Your task to perform on an android device: add a contact Image 0: 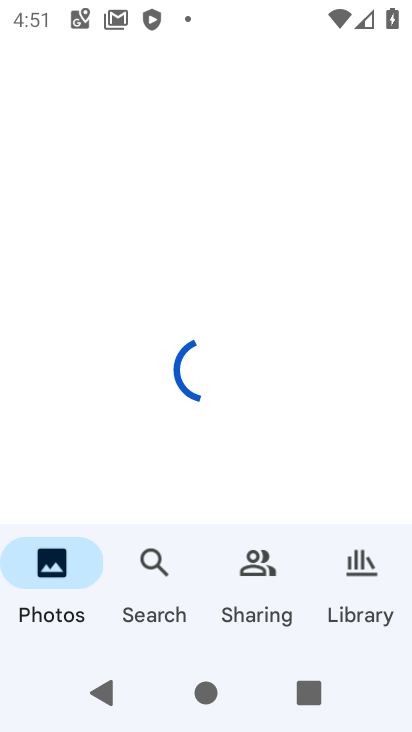
Step 0: press home button
Your task to perform on an android device: add a contact Image 1: 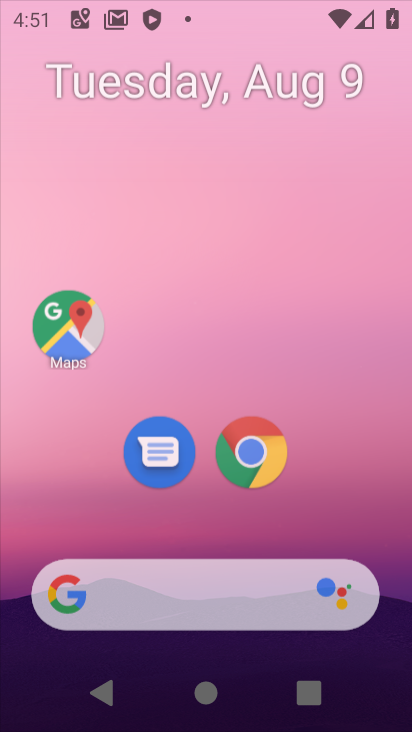
Step 1: drag from (254, 590) to (357, 184)
Your task to perform on an android device: add a contact Image 2: 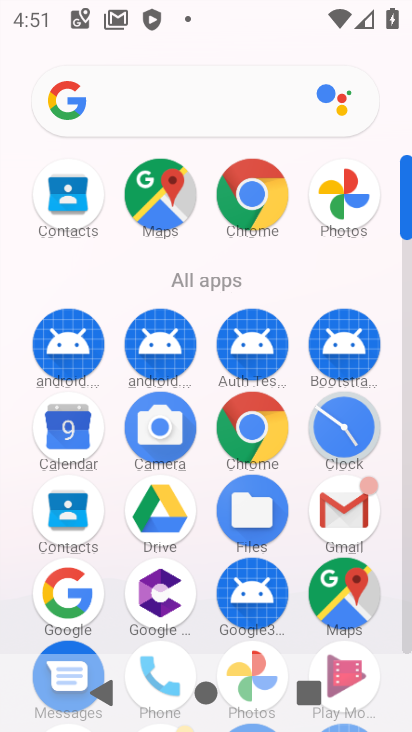
Step 2: drag from (187, 629) to (296, 261)
Your task to perform on an android device: add a contact Image 3: 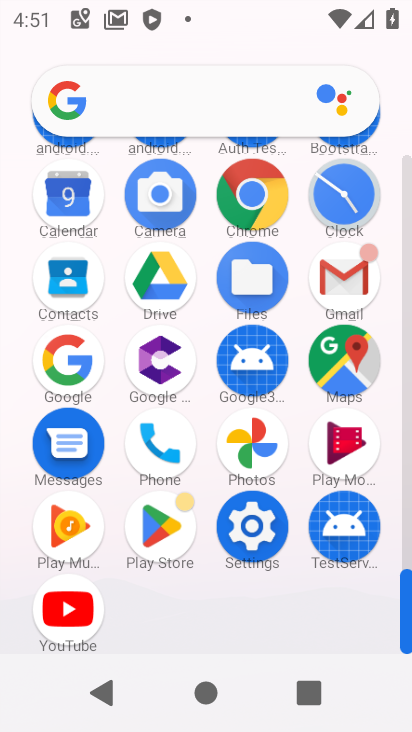
Step 3: click (64, 282)
Your task to perform on an android device: add a contact Image 4: 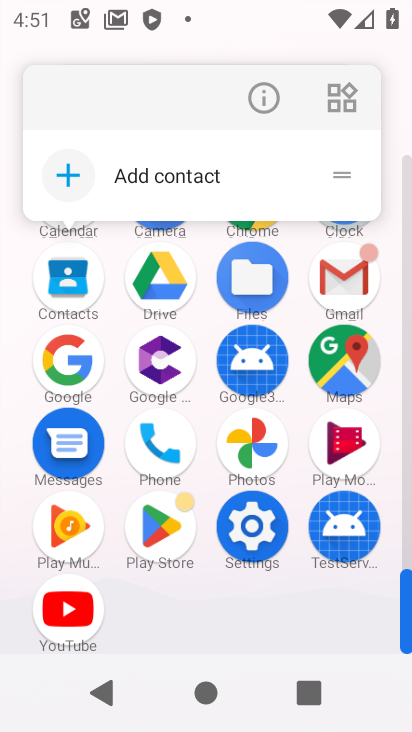
Step 4: click (264, 98)
Your task to perform on an android device: add a contact Image 5: 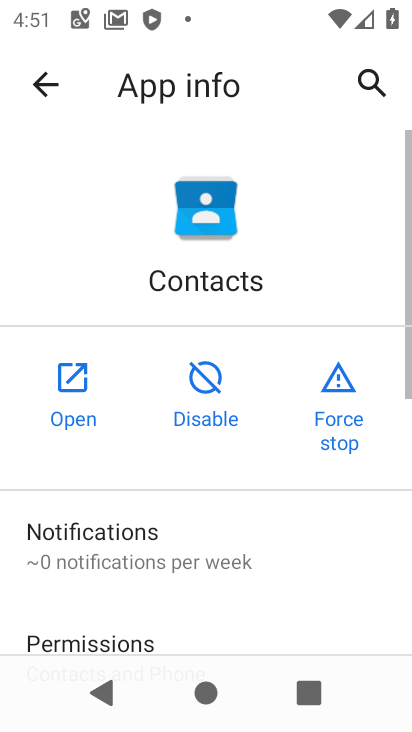
Step 5: click (80, 369)
Your task to perform on an android device: add a contact Image 6: 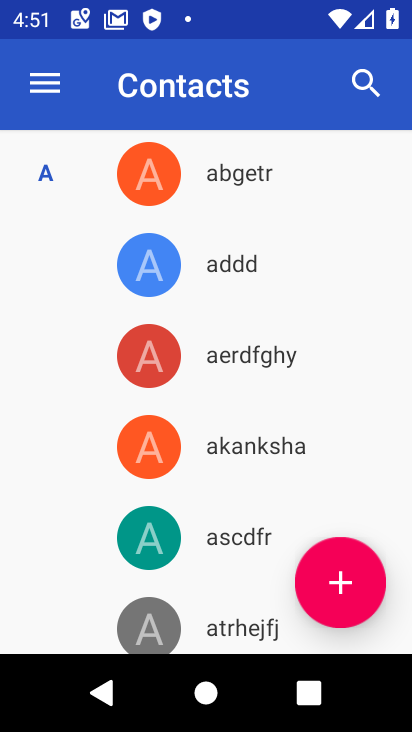
Step 6: drag from (217, 540) to (284, 195)
Your task to perform on an android device: add a contact Image 7: 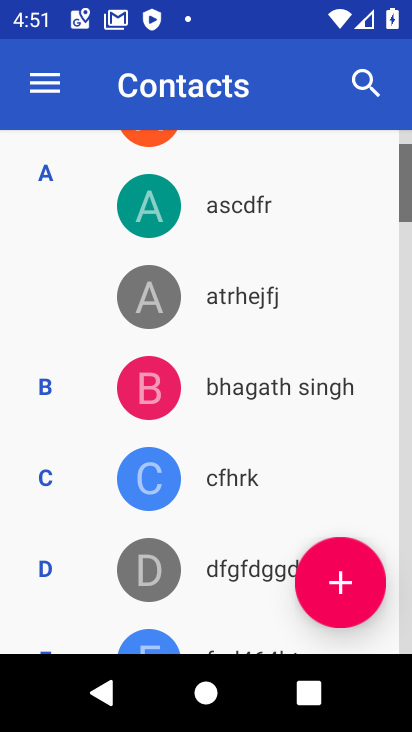
Step 7: click (344, 604)
Your task to perform on an android device: add a contact Image 8: 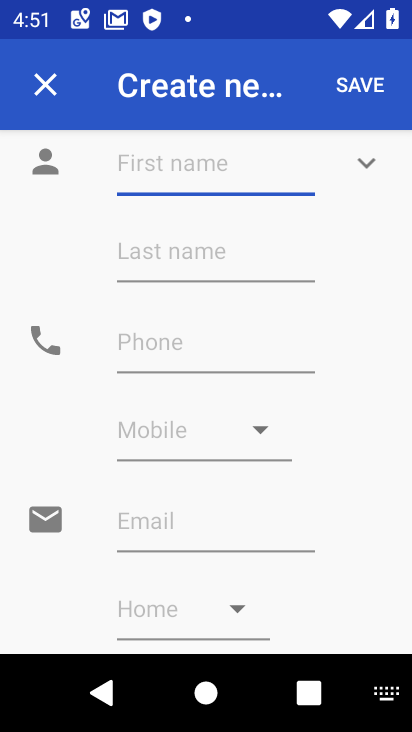
Step 8: type "nbnjk"
Your task to perform on an android device: add a contact Image 9: 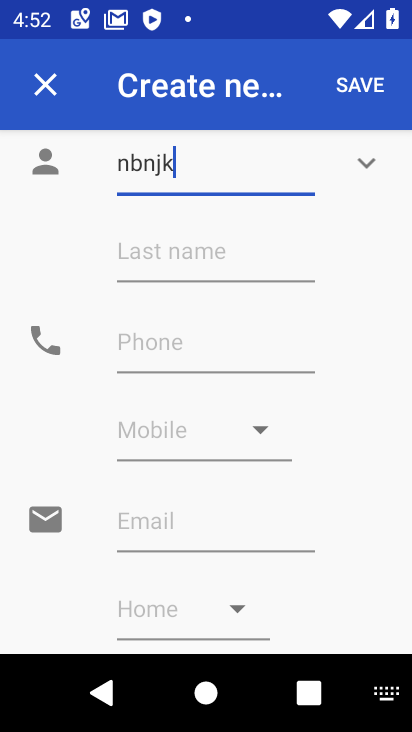
Step 9: click (361, 55)
Your task to perform on an android device: add a contact Image 10: 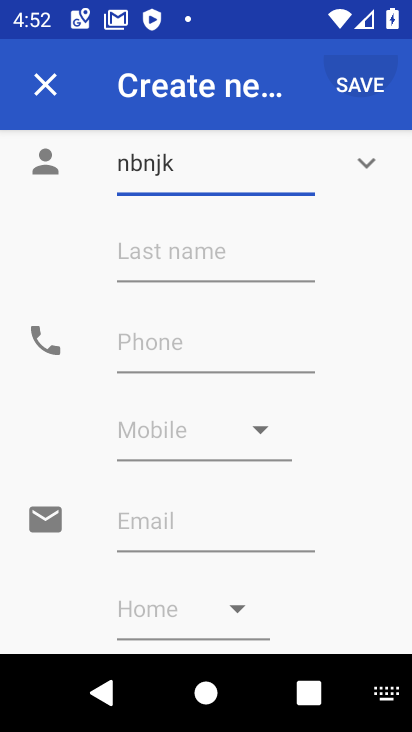
Step 10: click (361, 80)
Your task to perform on an android device: add a contact Image 11: 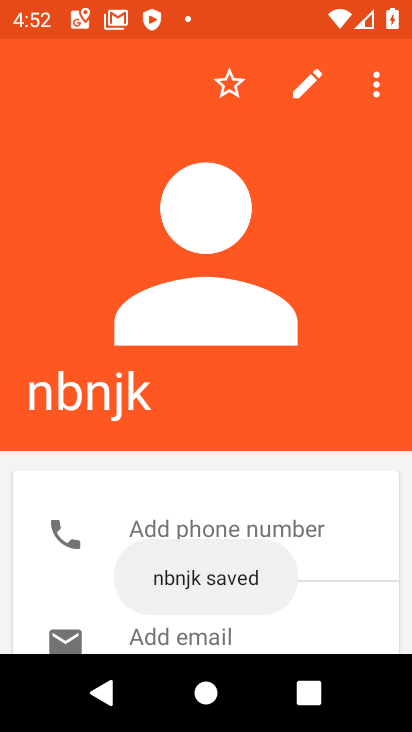
Step 11: task complete